Your task to perform on an android device: add a contact Image 0: 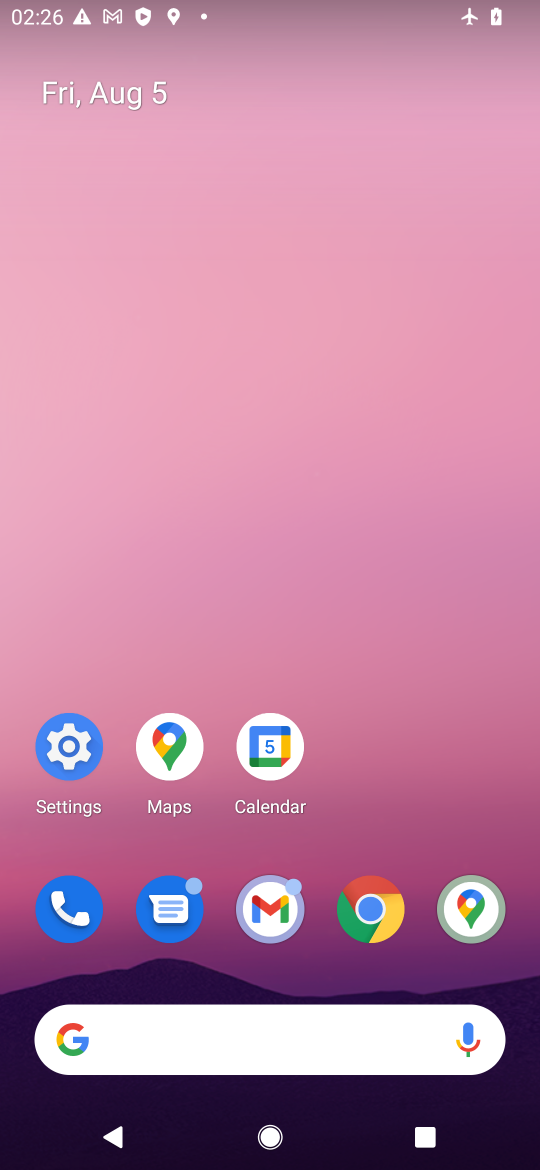
Step 0: drag from (403, 807) to (300, 132)
Your task to perform on an android device: add a contact Image 1: 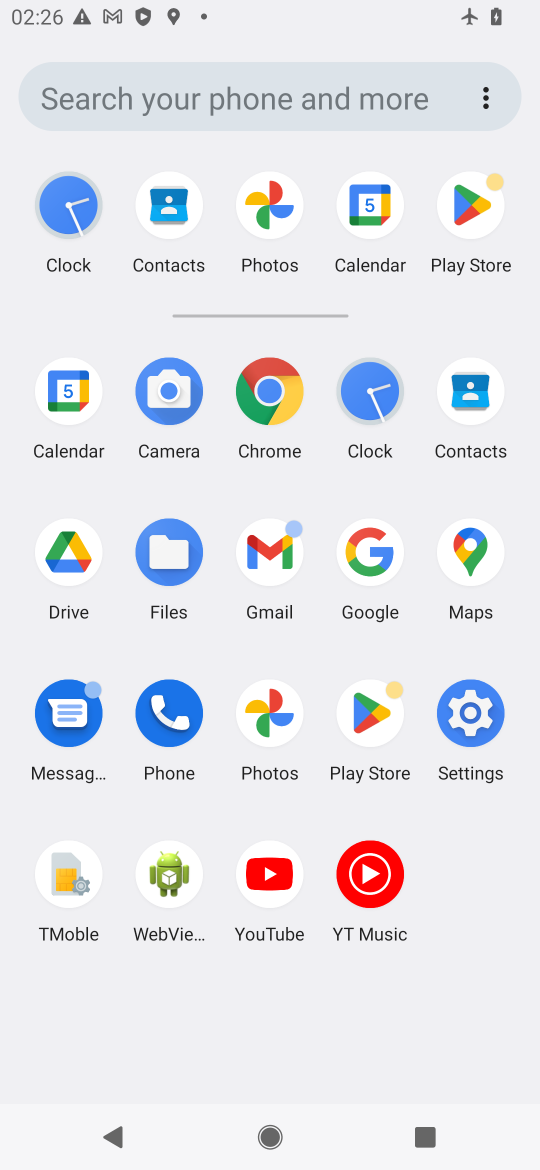
Step 1: click (456, 382)
Your task to perform on an android device: add a contact Image 2: 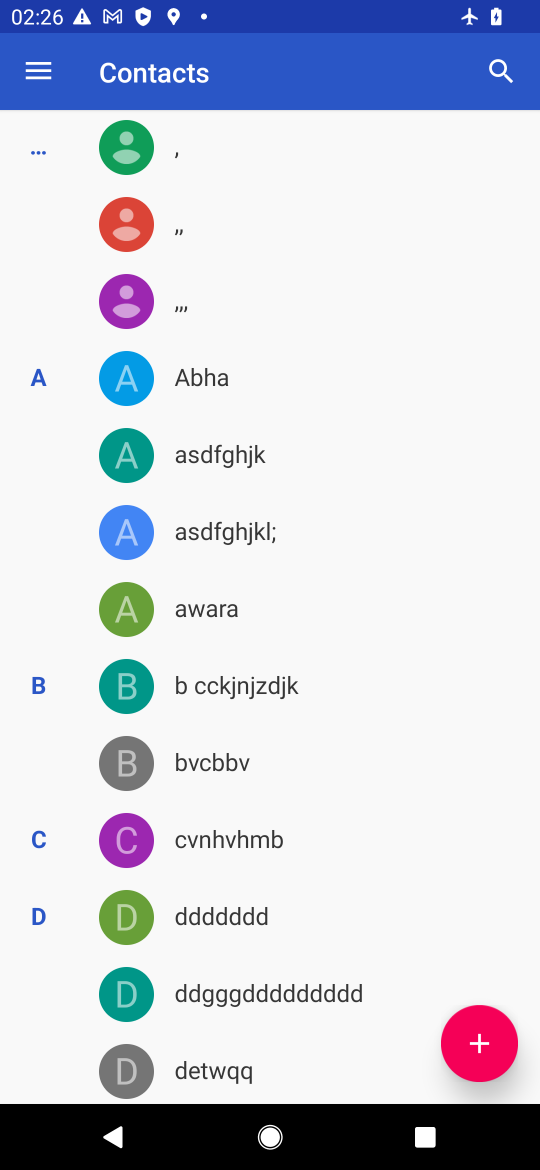
Step 2: click (485, 1051)
Your task to perform on an android device: add a contact Image 3: 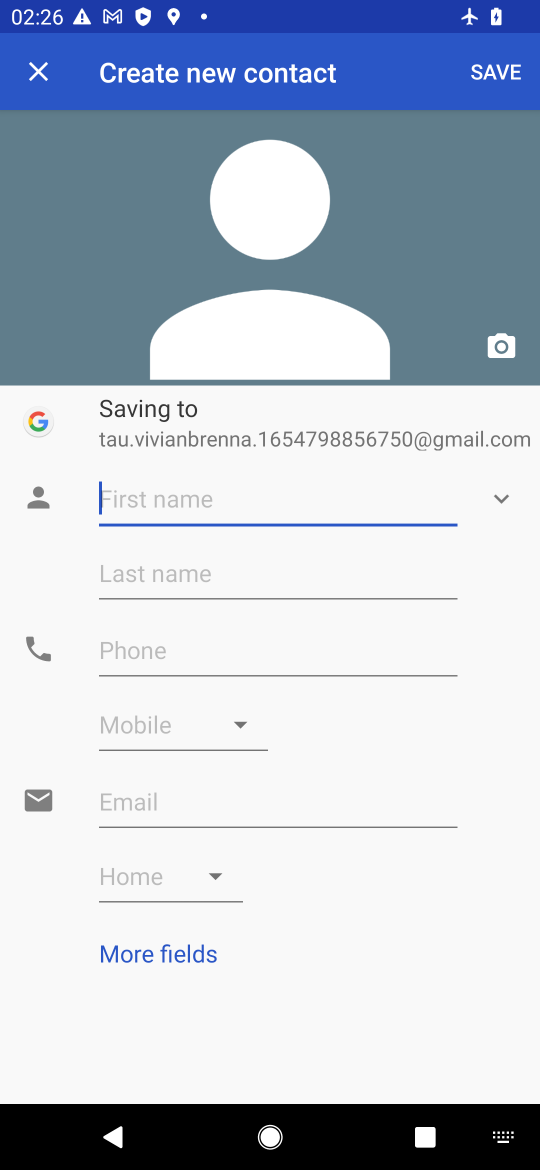
Step 3: type "aaaa"
Your task to perform on an android device: add a contact Image 4: 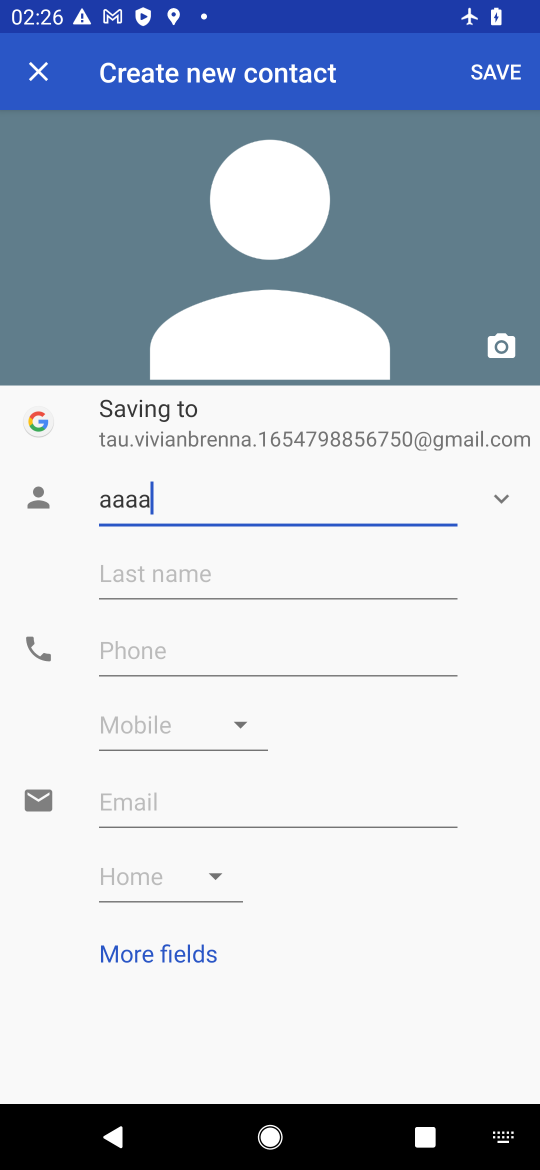
Step 4: click (238, 643)
Your task to perform on an android device: add a contact Image 5: 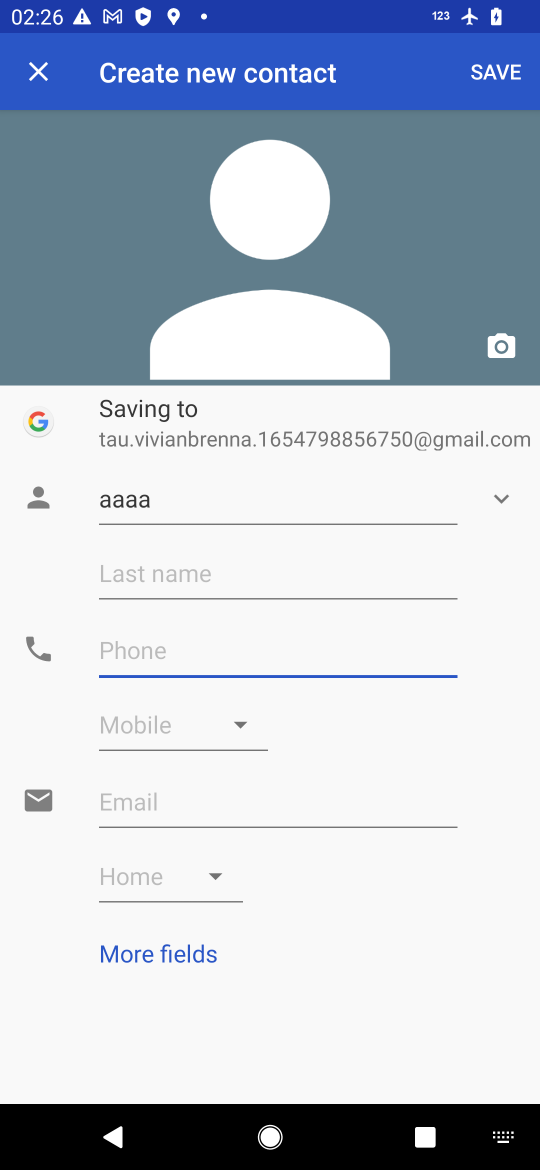
Step 5: type "222"
Your task to perform on an android device: add a contact Image 6: 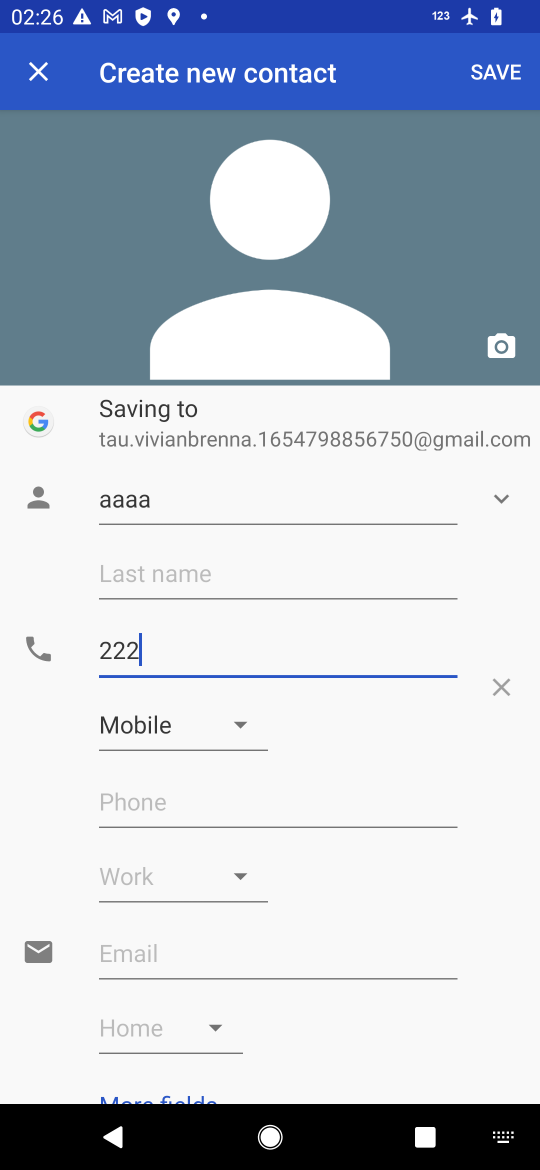
Step 6: click (483, 69)
Your task to perform on an android device: add a contact Image 7: 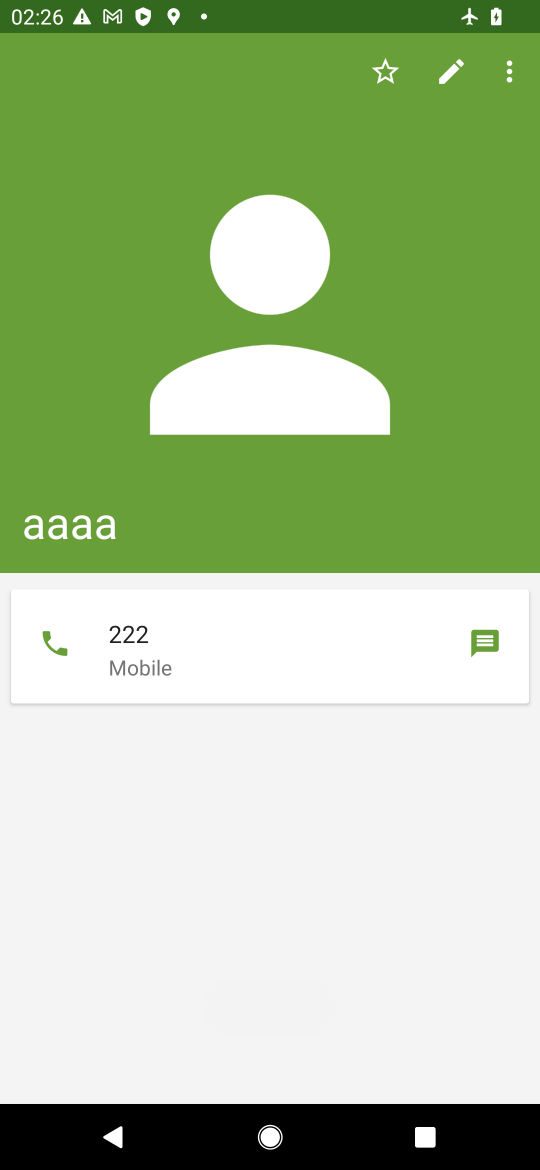
Step 7: task complete